Your task to perform on an android device: turn on showing notifications on the lock screen Image 0: 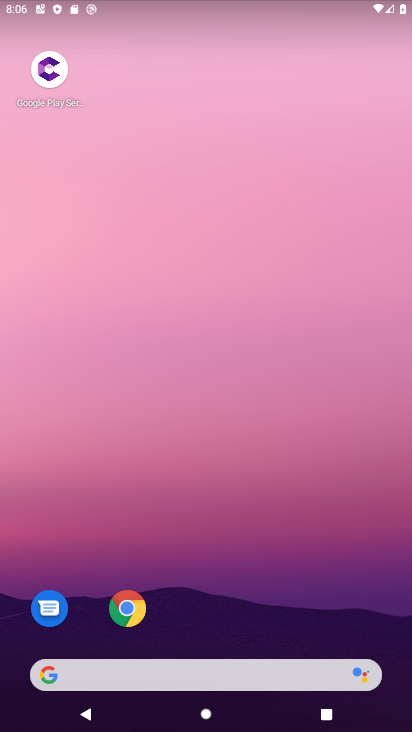
Step 0: drag from (163, 729) to (118, 87)
Your task to perform on an android device: turn on showing notifications on the lock screen Image 1: 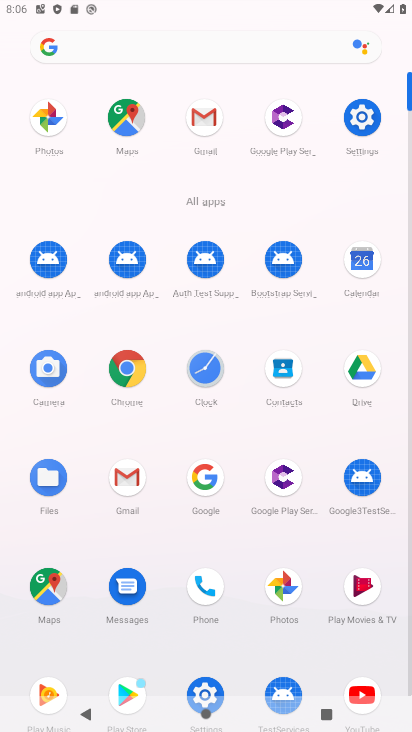
Step 1: click (373, 136)
Your task to perform on an android device: turn on showing notifications on the lock screen Image 2: 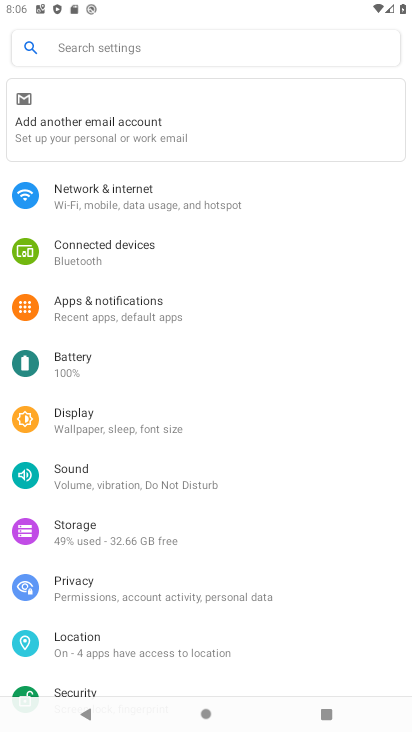
Step 2: click (149, 313)
Your task to perform on an android device: turn on showing notifications on the lock screen Image 3: 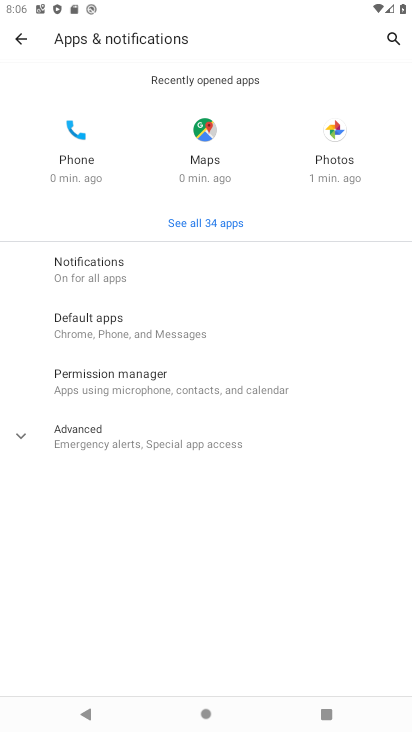
Step 3: click (123, 282)
Your task to perform on an android device: turn on showing notifications on the lock screen Image 4: 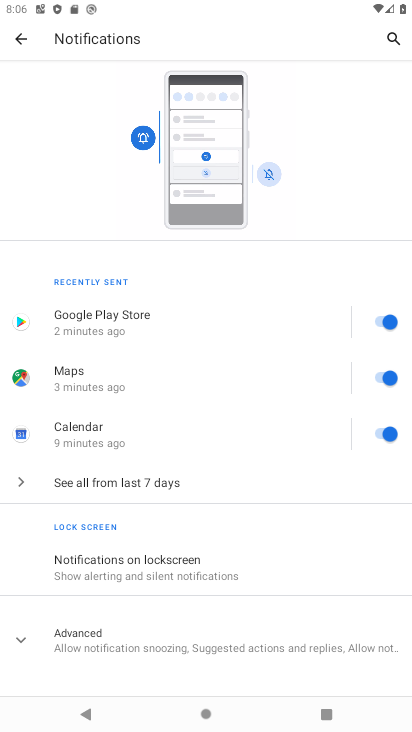
Step 4: click (171, 580)
Your task to perform on an android device: turn on showing notifications on the lock screen Image 5: 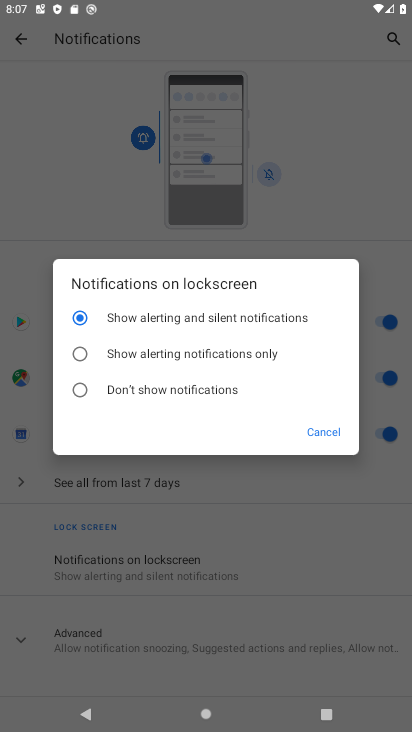
Step 5: task complete